Your task to perform on an android device: turn on notifications settings in the gmail app Image 0: 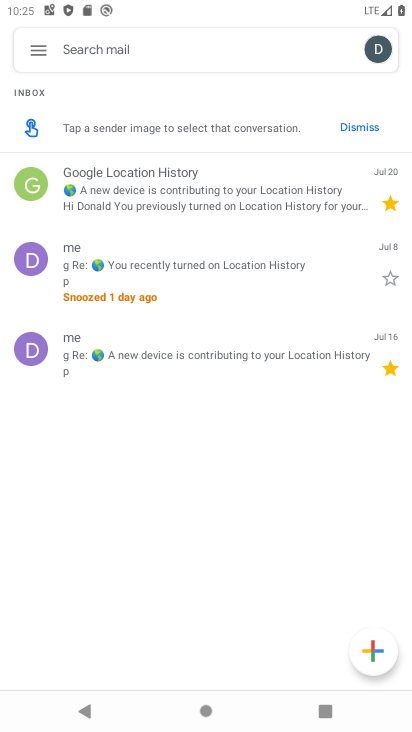
Step 0: press home button
Your task to perform on an android device: turn on notifications settings in the gmail app Image 1: 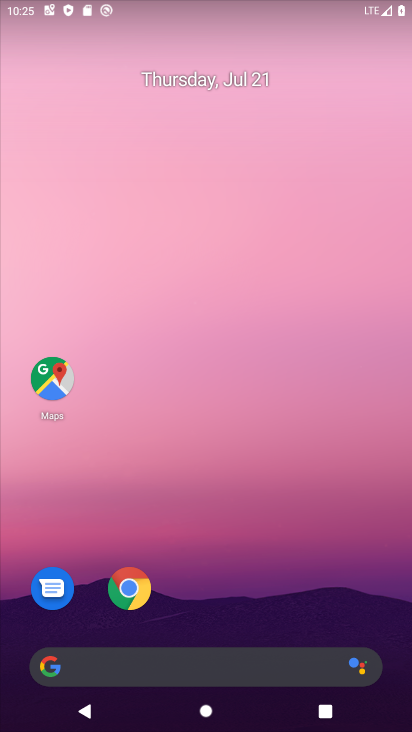
Step 1: drag from (404, 684) to (369, 91)
Your task to perform on an android device: turn on notifications settings in the gmail app Image 2: 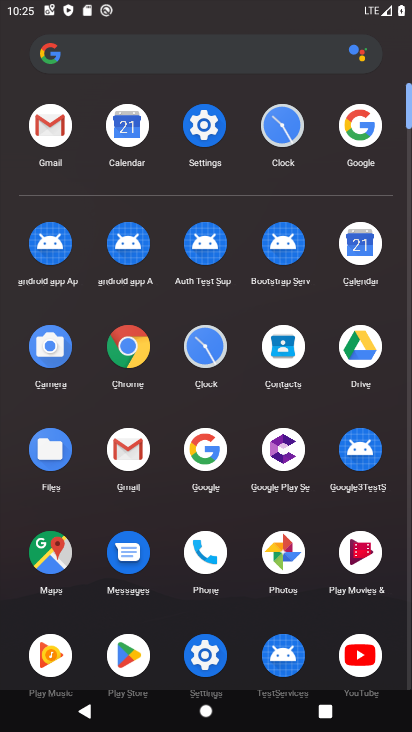
Step 2: click (123, 449)
Your task to perform on an android device: turn on notifications settings in the gmail app Image 3: 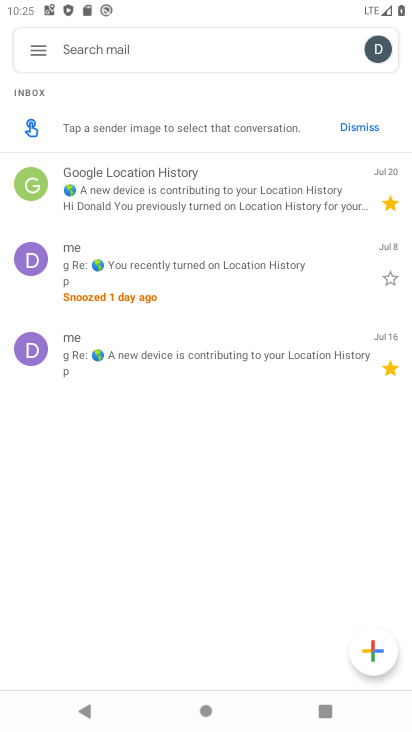
Step 3: click (33, 48)
Your task to perform on an android device: turn on notifications settings in the gmail app Image 4: 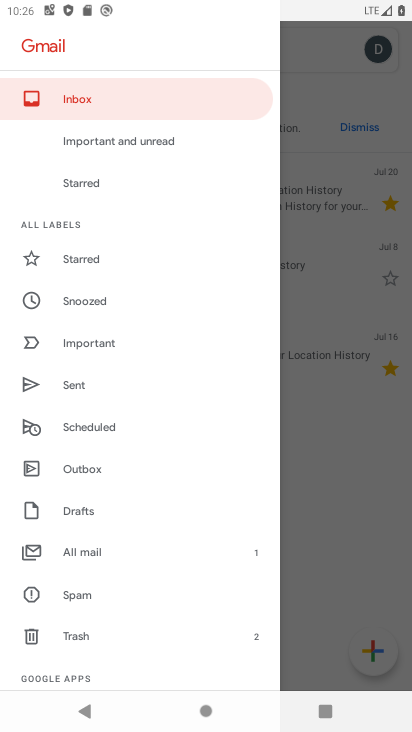
Step 4: drag from (177, 644) to (171, 401)
Your task to perform on an android device: turn on notifications settings in the gmail app Image 5: 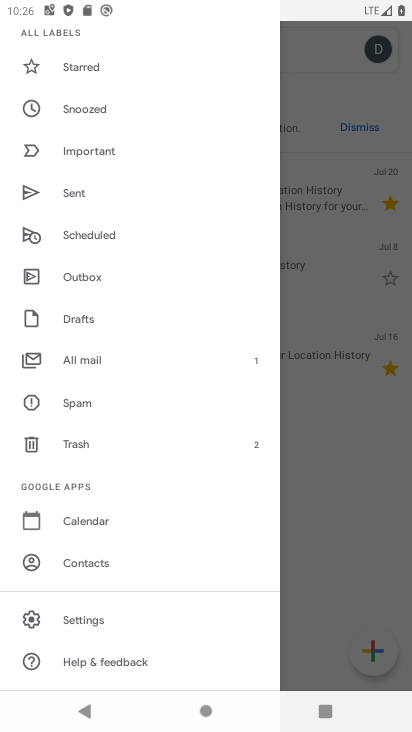
Step 5: click (75, 620)
Your task to perform on an android device: turn on notifications settings in the gmail app Image 6: 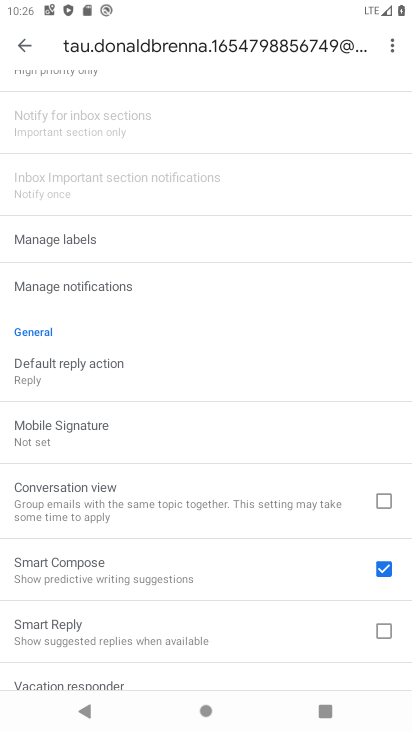
Step 6: drag from (149, 147) to (195, 452)
Your task to perform on an android device: turn on notifications settings in the gmail app Image 7: 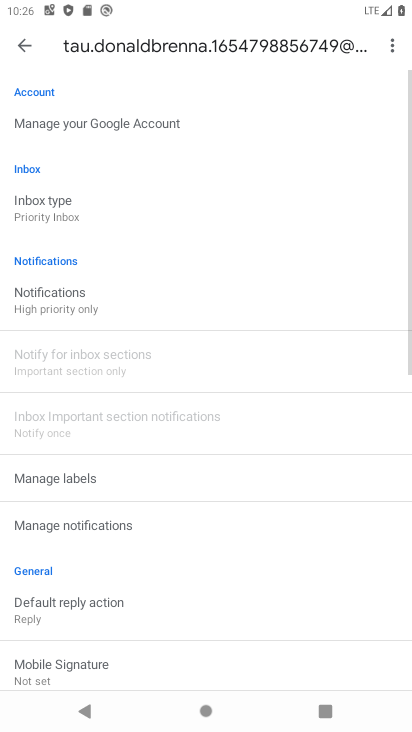
Step 7: click (64, 526)
Your task to perform on an android device: turn on notifications settings in the gmail app Image 8: 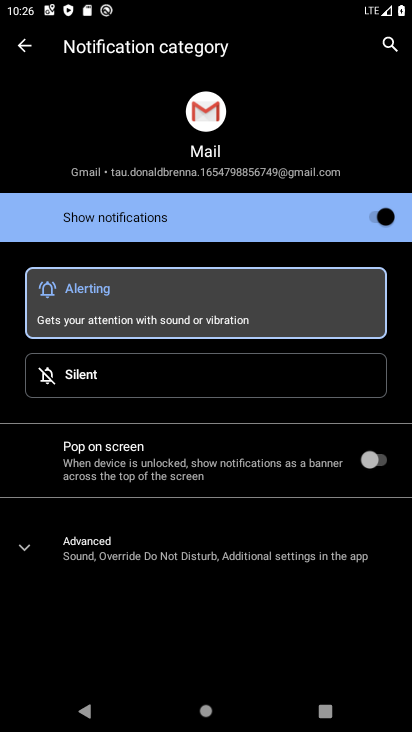
Step 8: click (28, 62)
Your task to perform on an android device: turn on notifications settings in the gmail app Image 9: 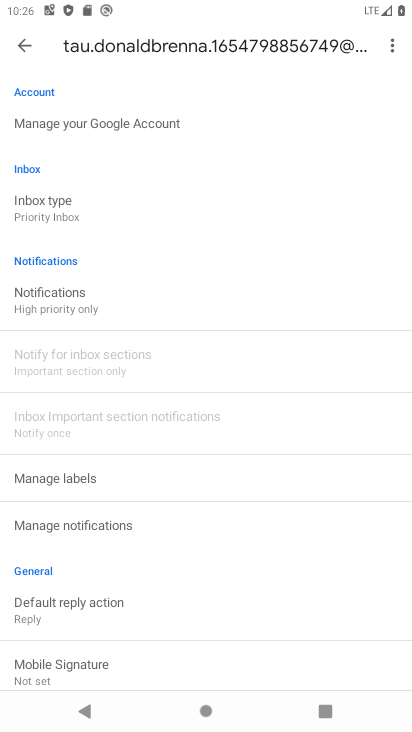
Step 9: click (51, 287)
Your task to perform on an android device: turn on notifications settings in the gmail app Image 10: 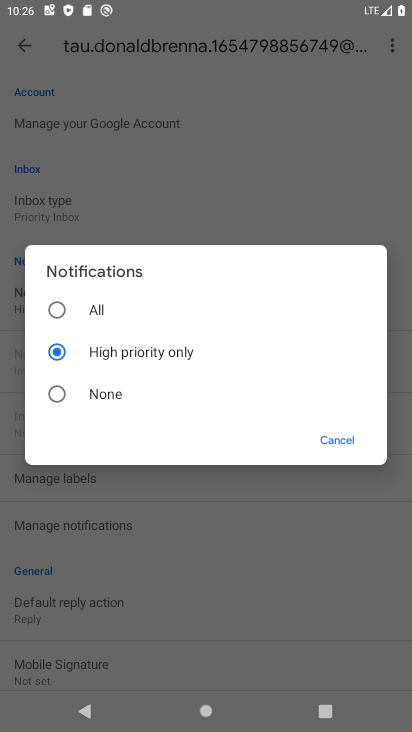
Step 10: click (54, 314)
Your task to perform on an android device: turn on notifications settings in the gmail app Image 11: 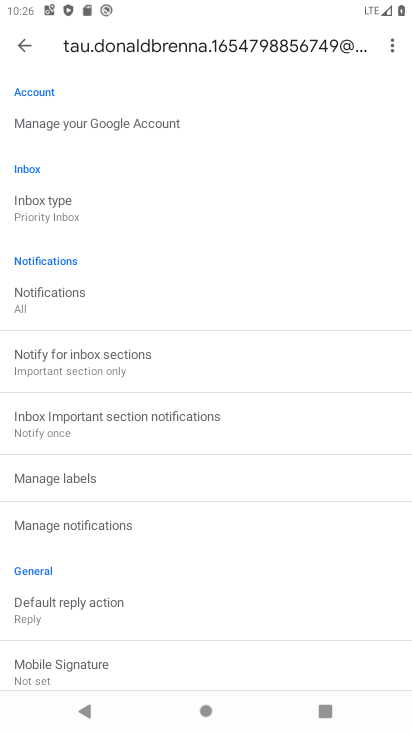
Step 11: task complete